Your task to perform on an android device: Open calendar and show me the fourth week of next month Image 0: 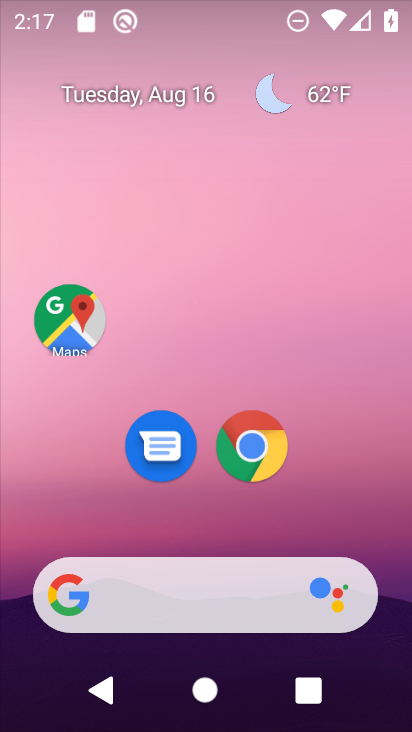
Step 0: press home button
Your task to perform on an android device: Open calendar and show me the fourth week of next month Image 1: 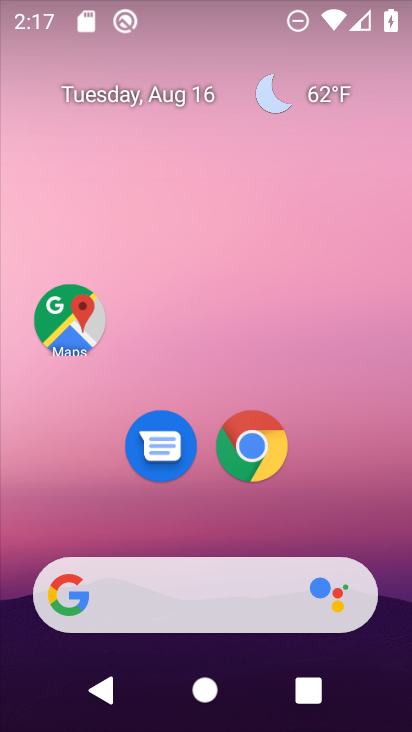
Step 1: drag from (208, 531) to (242, 73)
Your task to perform on an android device: Open calendar and show me the fourth week of next month Image 2: 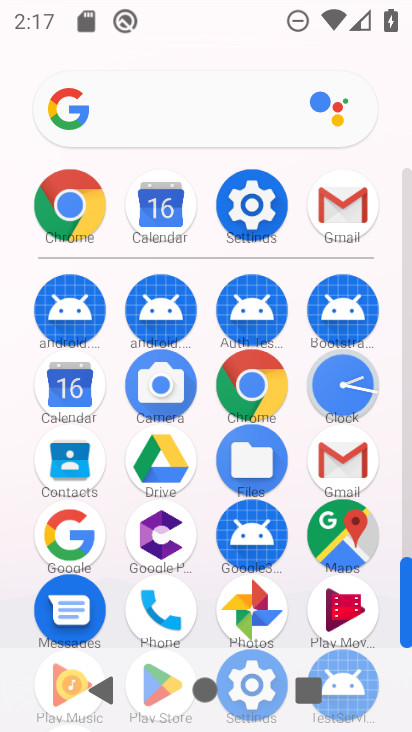
Step 2: click (69, 379)
Your task to perform on an android device: Open calendar and show me the fourth week of next month Image 3: 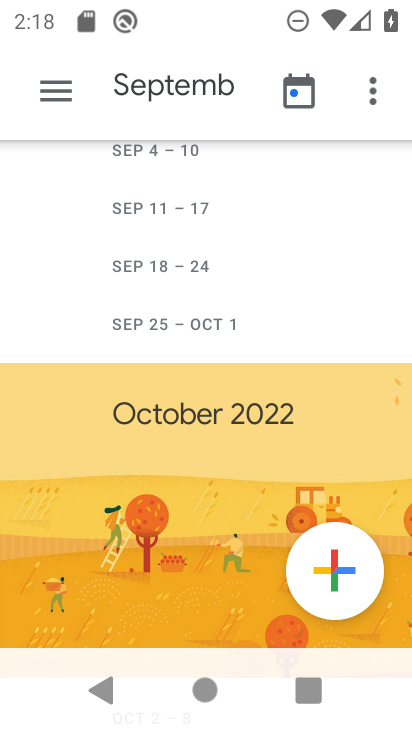
Step 3: click (52, 87)
Your task to perform on an android device: Open calendar and show me the fourth week of next month Image 4: 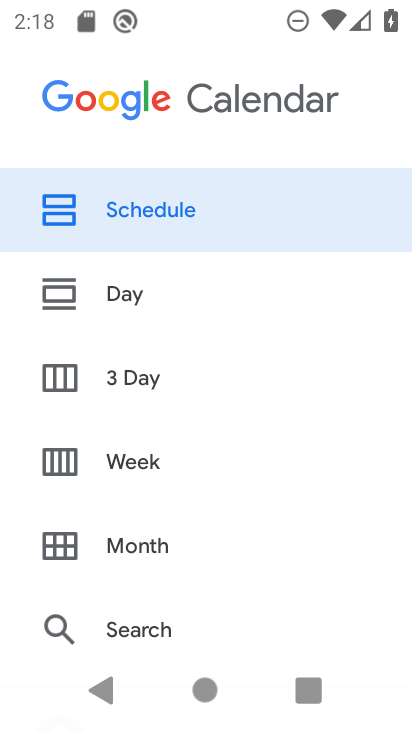
Step 4: click (91, 458)
Your task to perform on an android device: Open calendar and show me the fourth week of next month Image 5: 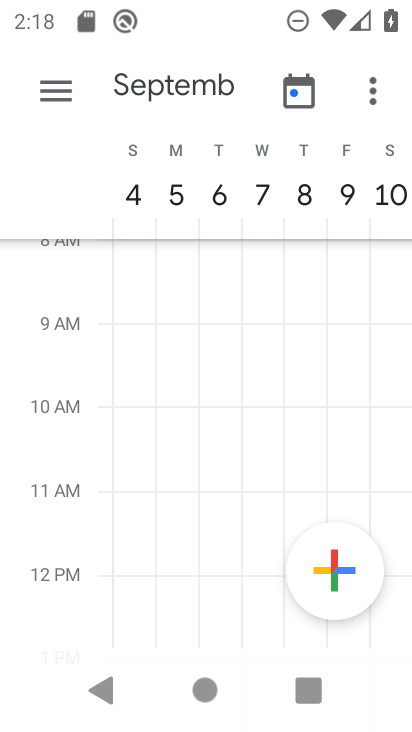
Step 5: click (226, 80)
Your task to perform on an android device: Open calendar and show me the fourth week of next month Image 6: 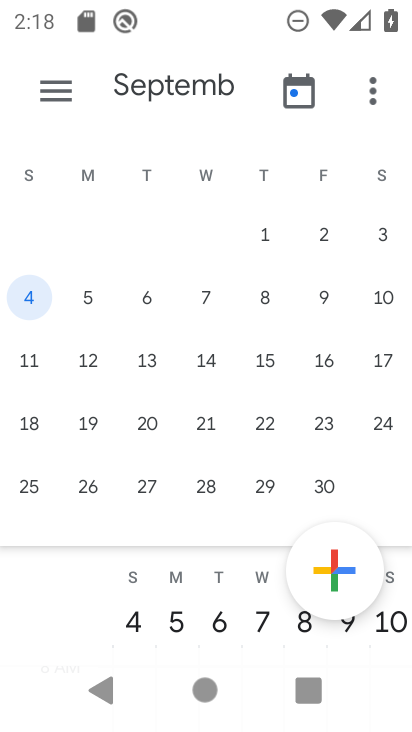
Step 6: click (30, 485)
Your task to perform on an android device: Open calendar and show me the fourth week of next month Image 7: 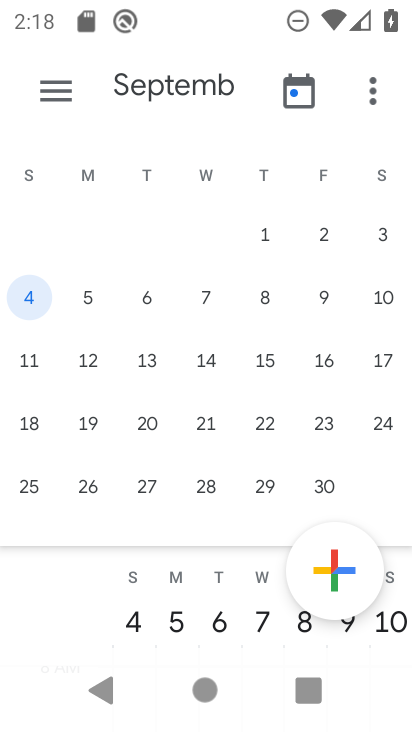
Step 7: click (34, 486)
Your task to perform on an android device: Open calendar and show me the fourth week of next month Image 8: 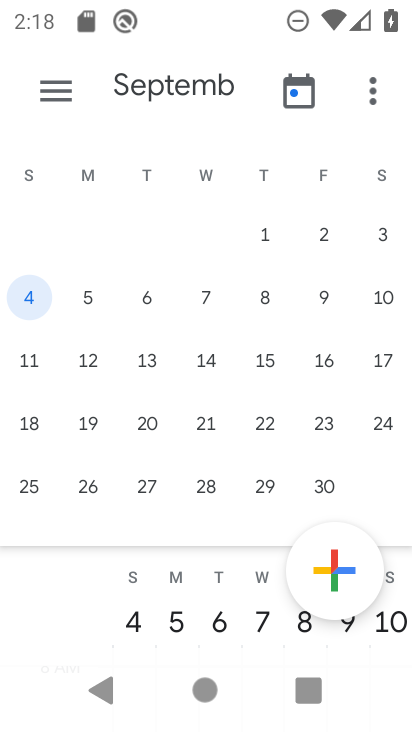
Step 8: click (43, 487)
Your task to perform on an android device: Open calendar and show me the fourth week of next month Image 9: 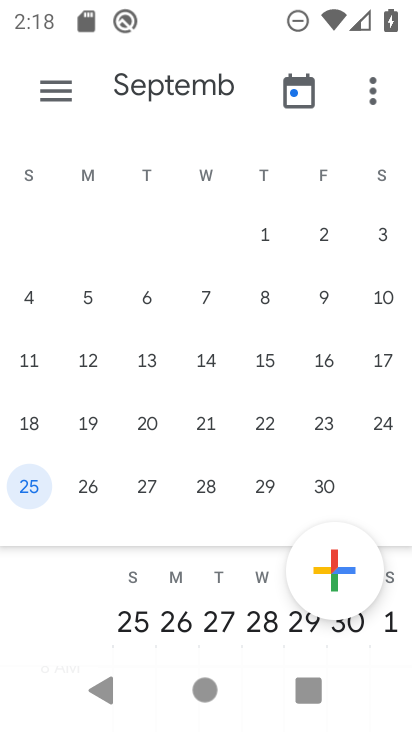
Step 9: click (179, 90)
Your task to perform on an android device: Open calendar and show me the fourth week of next month Image 10: 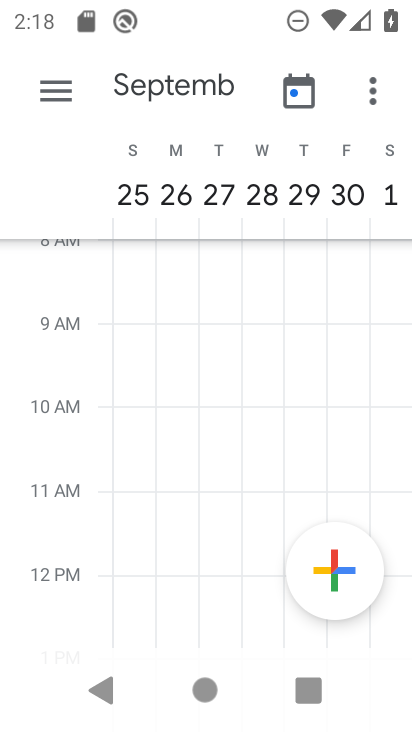
Step 10: task complete